Your task to perform on an android device: Turn on the flashlight Image 0: 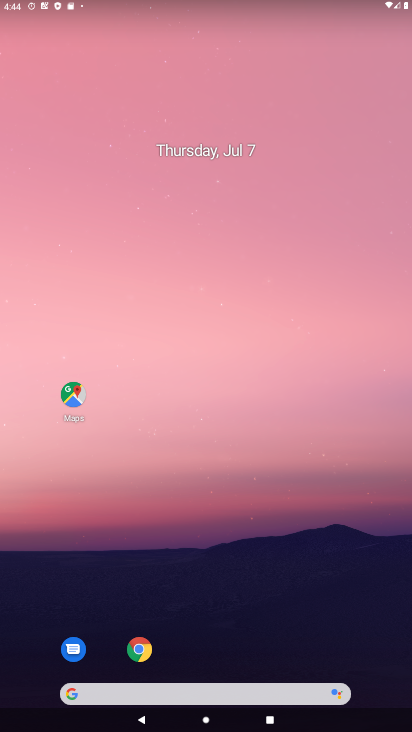
Step 0: drag from (389, 680) to (147, 78)
Your task to perform on an android device: Turn on the flashlight Image 1: 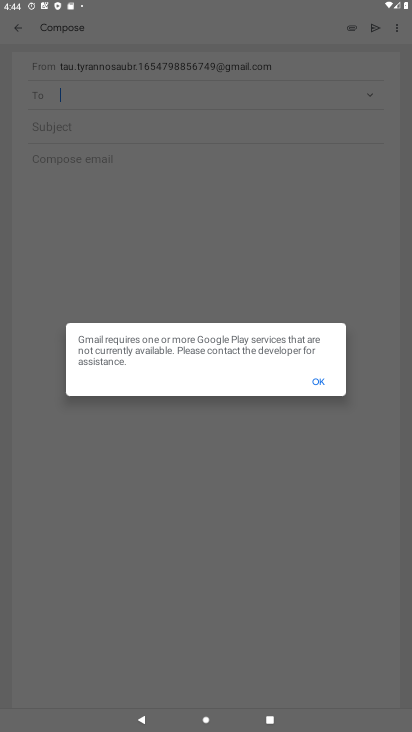
Step 1: press home button
Your task to perform on an android device: Turn on the flashlight Image 2: 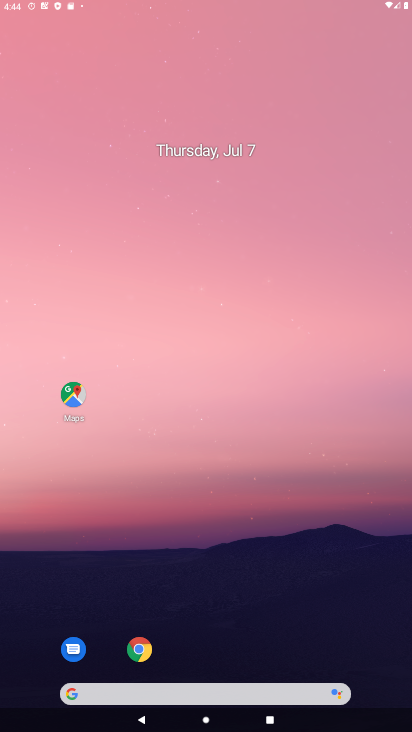
Step 2: drag from (372, 706) to (168, 5)
Your task to perform on an android device: Turn on the flashlight Image 3: 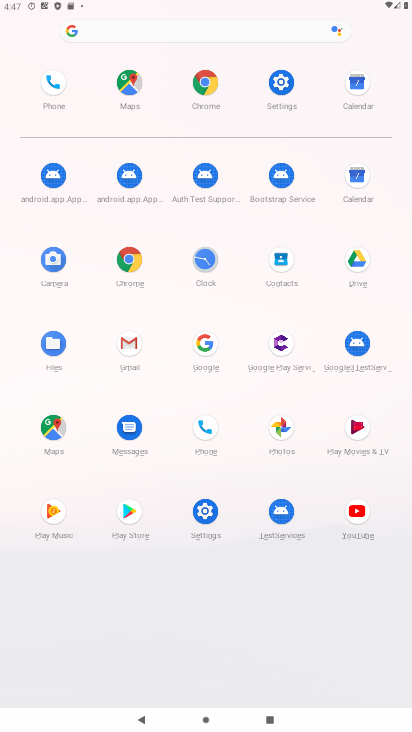
Step 3: click (281, 72)
Your task to perform on an android device: Turn on the flashlight Image 4: 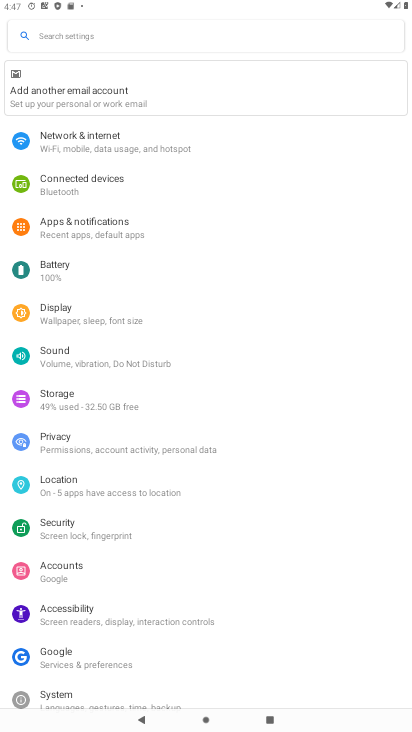
Step 4: task complete